Your task to perform on an android device: Open Chrome and go to settings Image 0: 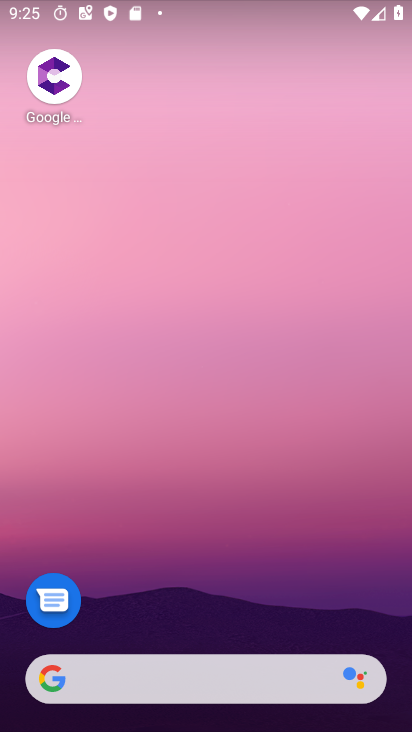
Step 0: drag from (189, 613) to (173, 55)
Your task to perform on an android device: Open Chrome and go to settings Image 1: 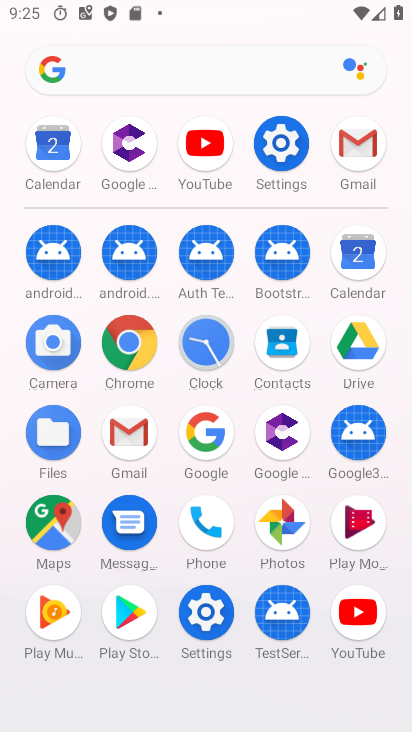
Step 1: click (136, 342)
Your task to perform on an android device: Open Chrome and go to settings Image 2: 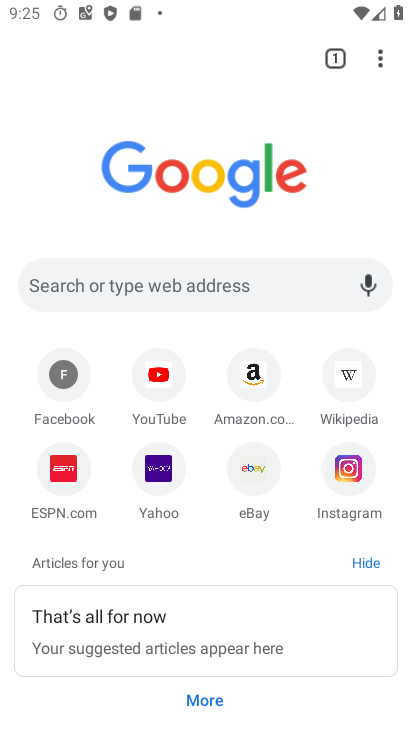
Step 2: click (375, 56)
Your task to perform on an android device: Open Chrome and go to settings Image 3: 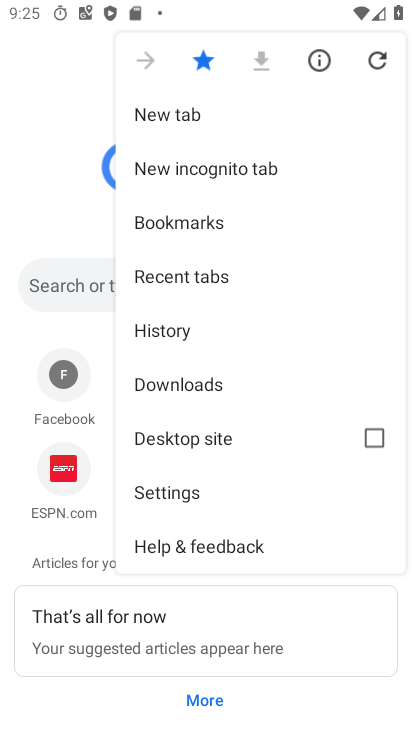
Step 3: click (186, 488)
Your task to perform on an android device: Open Chrome and go to settings Image 4: 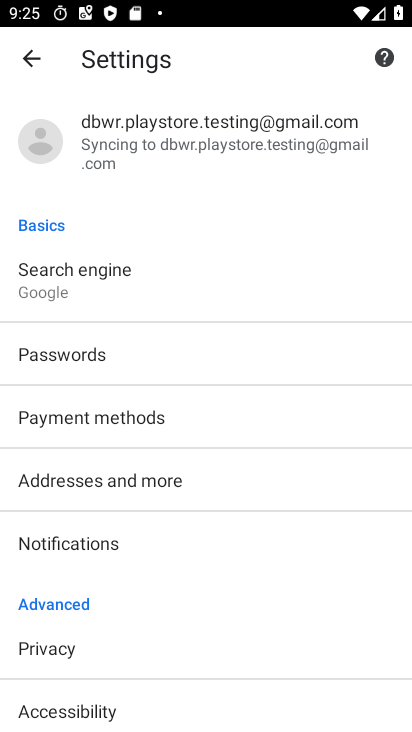
Step 4: task complete